Your task to perform on an android device: snooze an email in the gmail app Image 0: 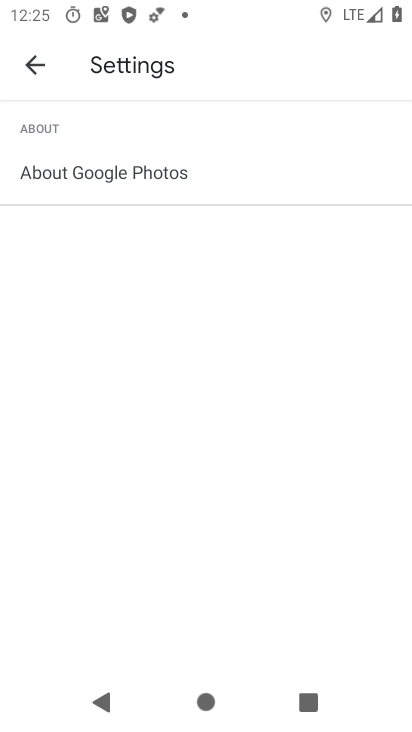
Step 0: press home button
Your task to perform on an android device: snooze an email in the gmail app Image 1: 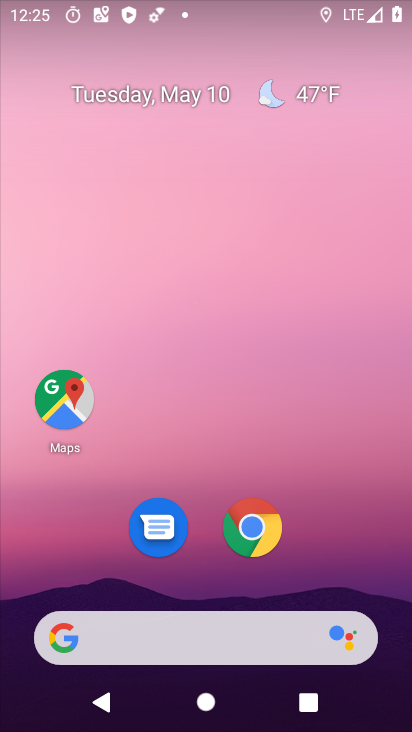
Step 1: drag from (343, 564) to (301, 94)
Your task to perform on an android device: snooze an email in the gmail app Image 2: 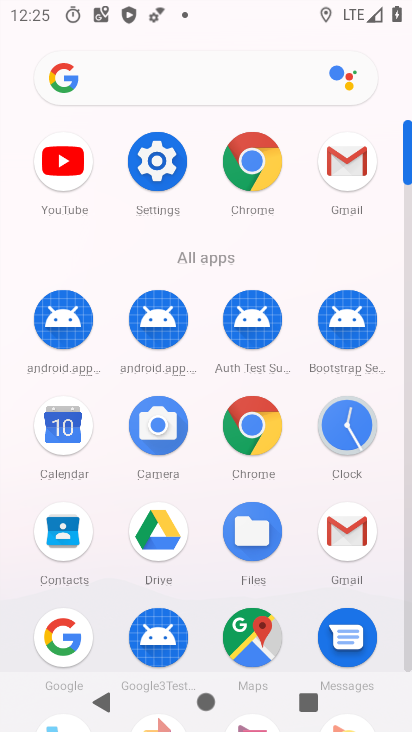
Step 2: click (357, 175)
Your task to perform on an android device: snooze an email in the gmail app Image 3: 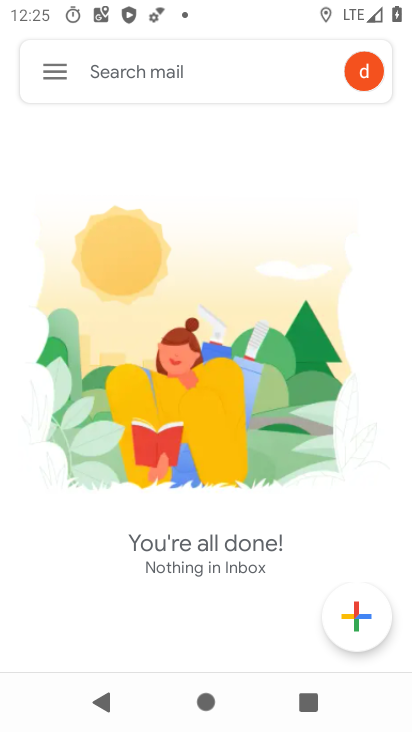
Step 3: click (55, 95)
Your task to perform on an android device: snooze an email in the gmail app Image 4: 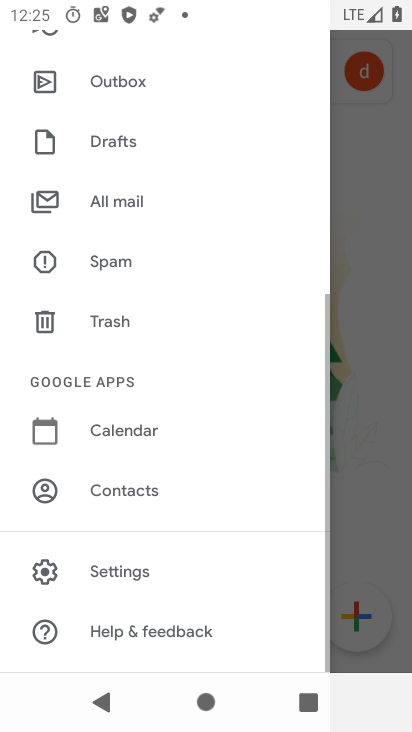
Step 4: drag from (220, 156) to (218, 486)
Your task to perform on an android device: snooze an email in the gmail app Image 5: 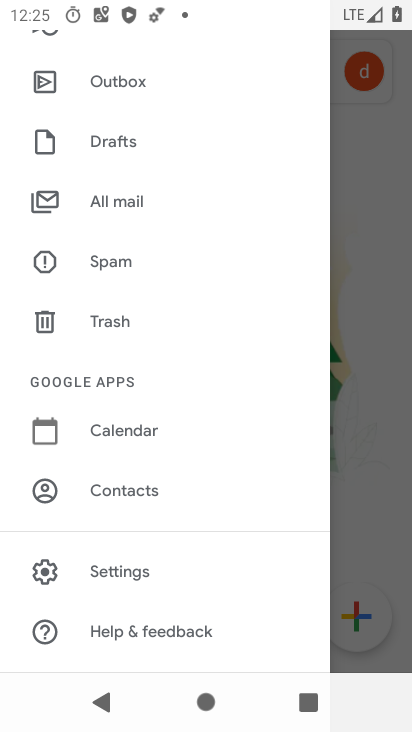
Step 5: drag from (213, 206) to (216, 559)
Your task to perform on an android device: snooze an email in the gmail app Image 6: 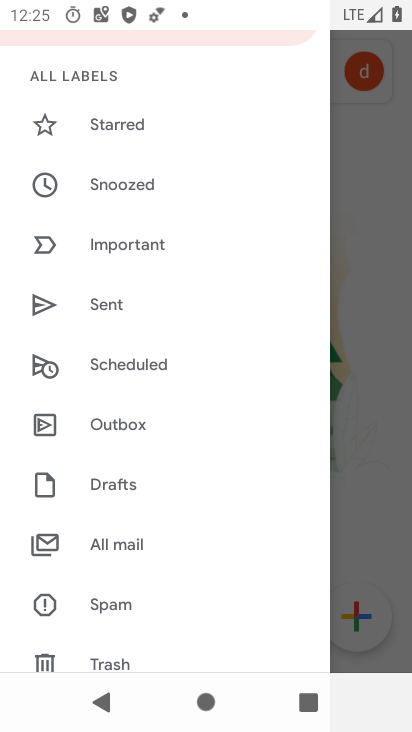
Step 6: click (150, 178)
Your task to perform on an android device: snooze an email in the gmail app Image 7: 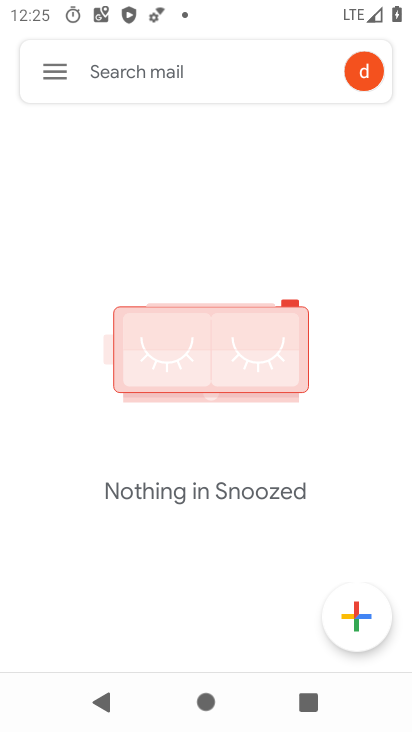
Step 7: task complete